Your task to perform on an android device: Search for the new Nike Air Max 270 on Nike.com Image 0: 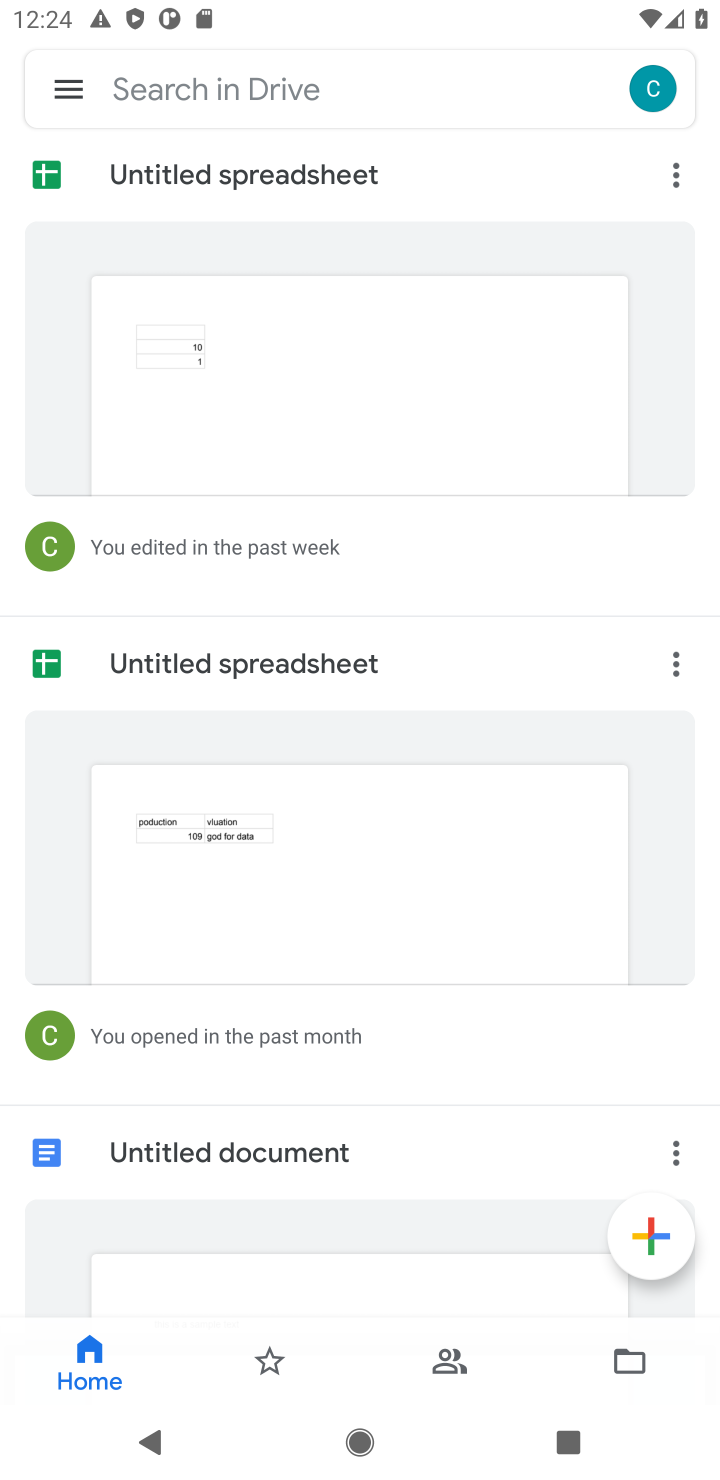
Step 0: press home button
Your task to perform on an android device: Search for the new Nike Air Max 270 on Nike.com Image 1: 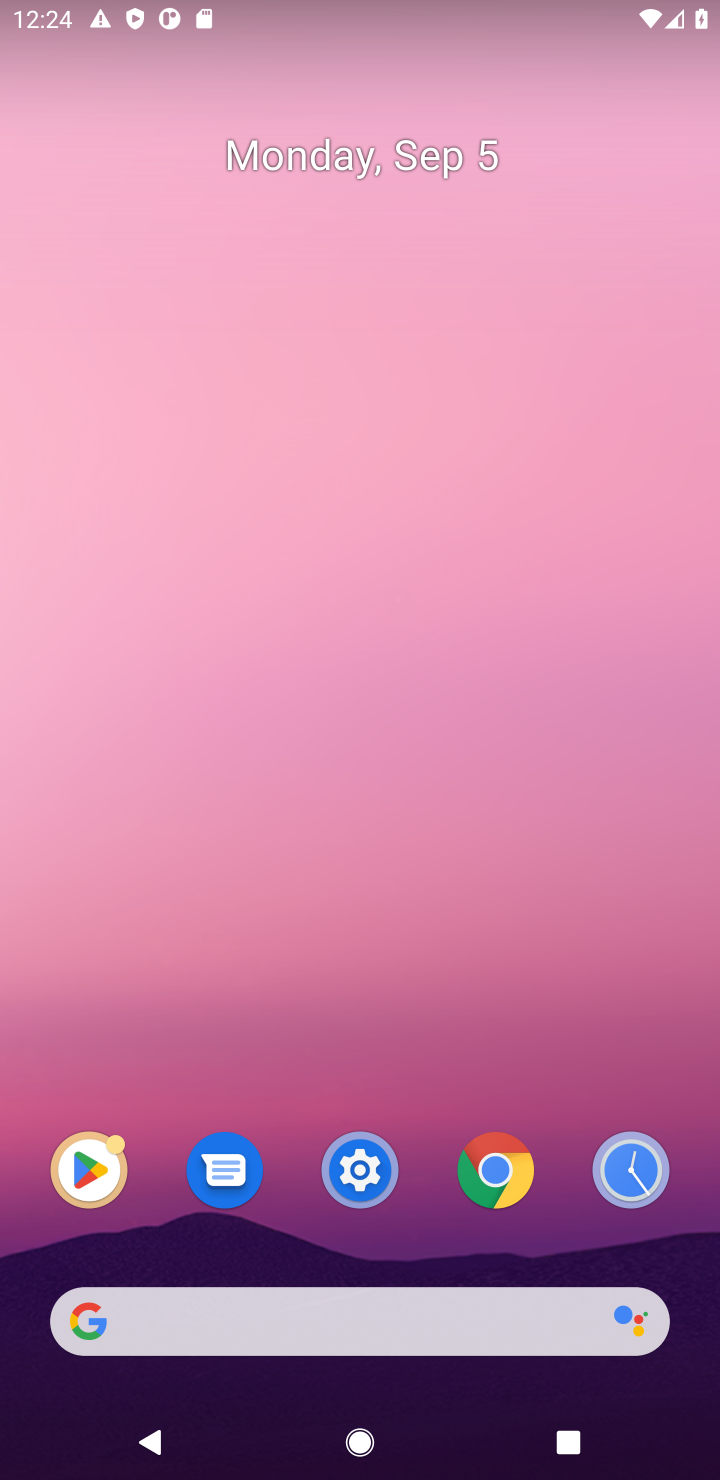
Step 1: click (433, 1297)
Your task to perform on an android device: Search for the new Nike Air Max 270 on Nike.com Image 2: 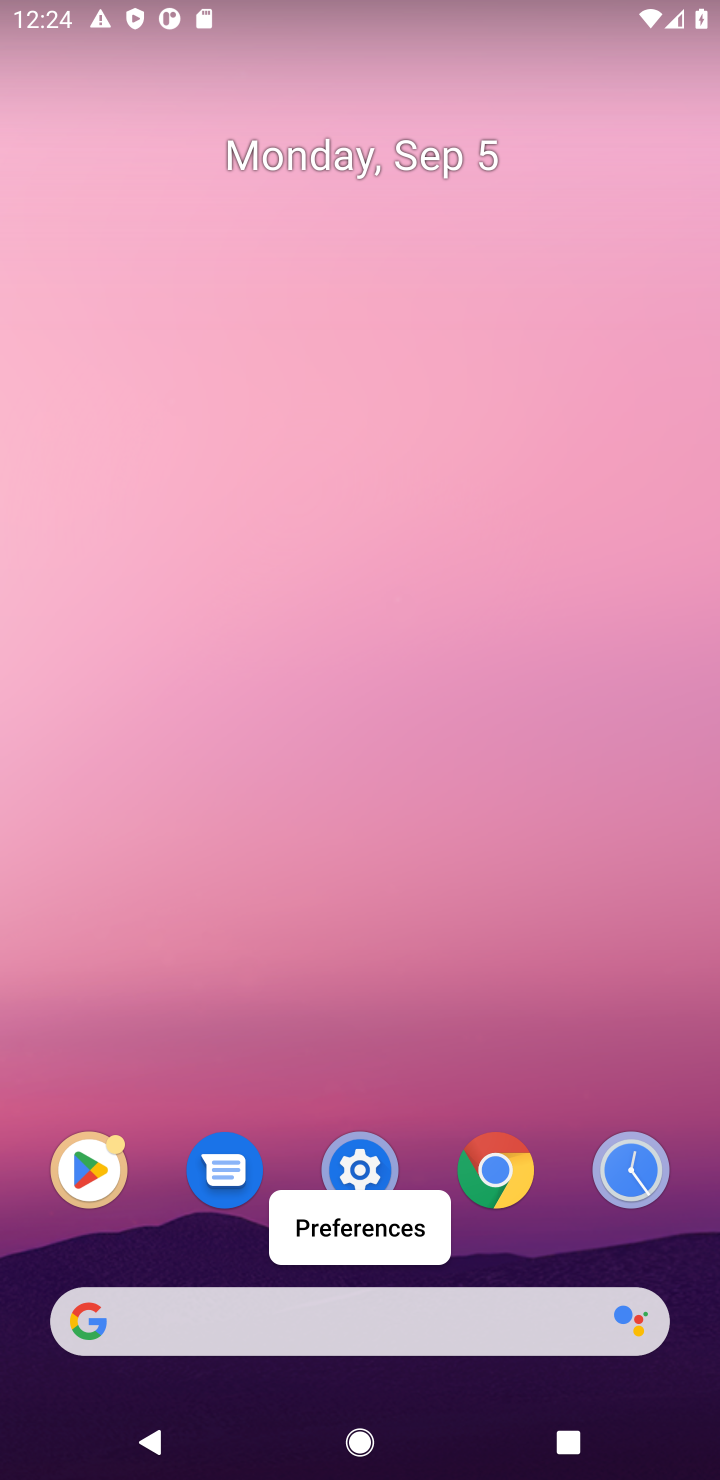
Step 2: click (414, 1320)
Your task to perform on an android device: Search for the new Nike Air Max 270 on Nike.com Image 3: 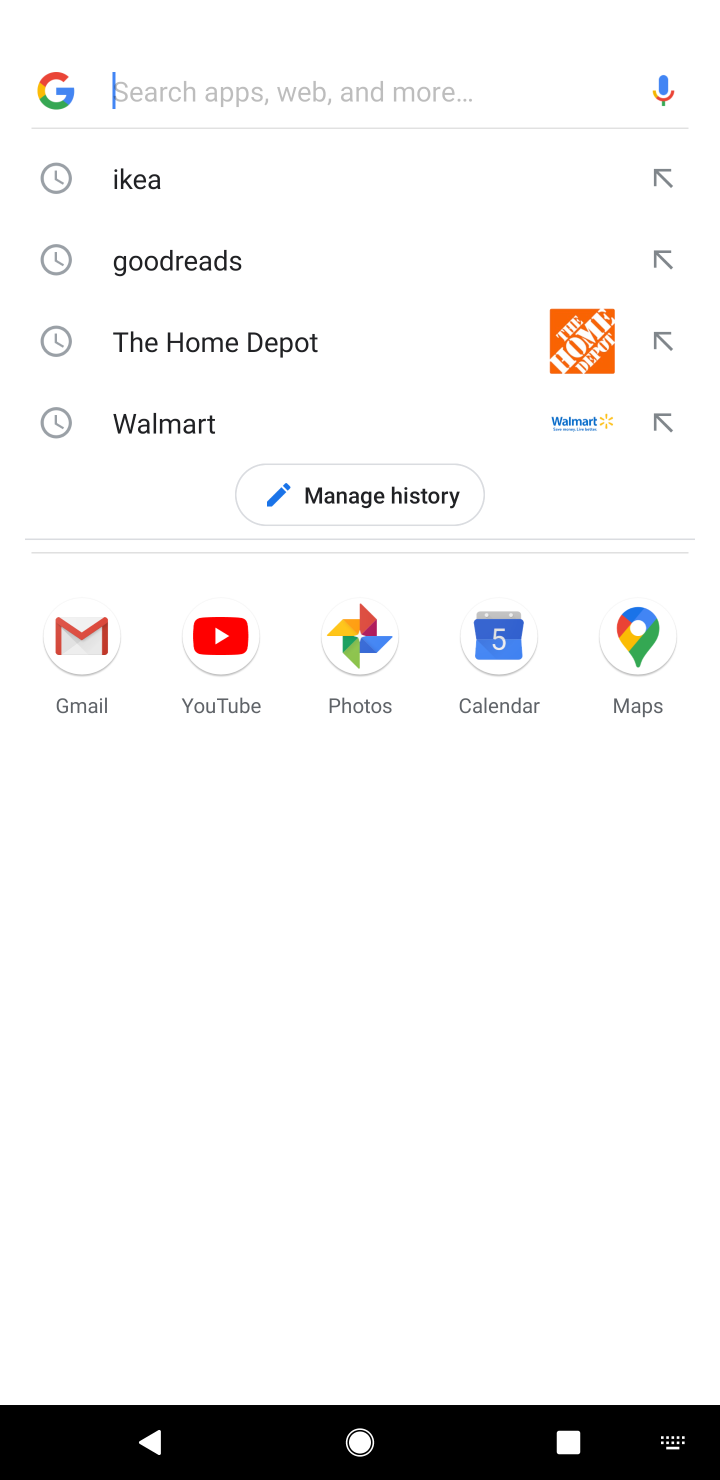
Step 3: type "Nike.com"
Your task to perform on an android device: Search for the new Nike Air Max 270 on Nike.com Image 4: 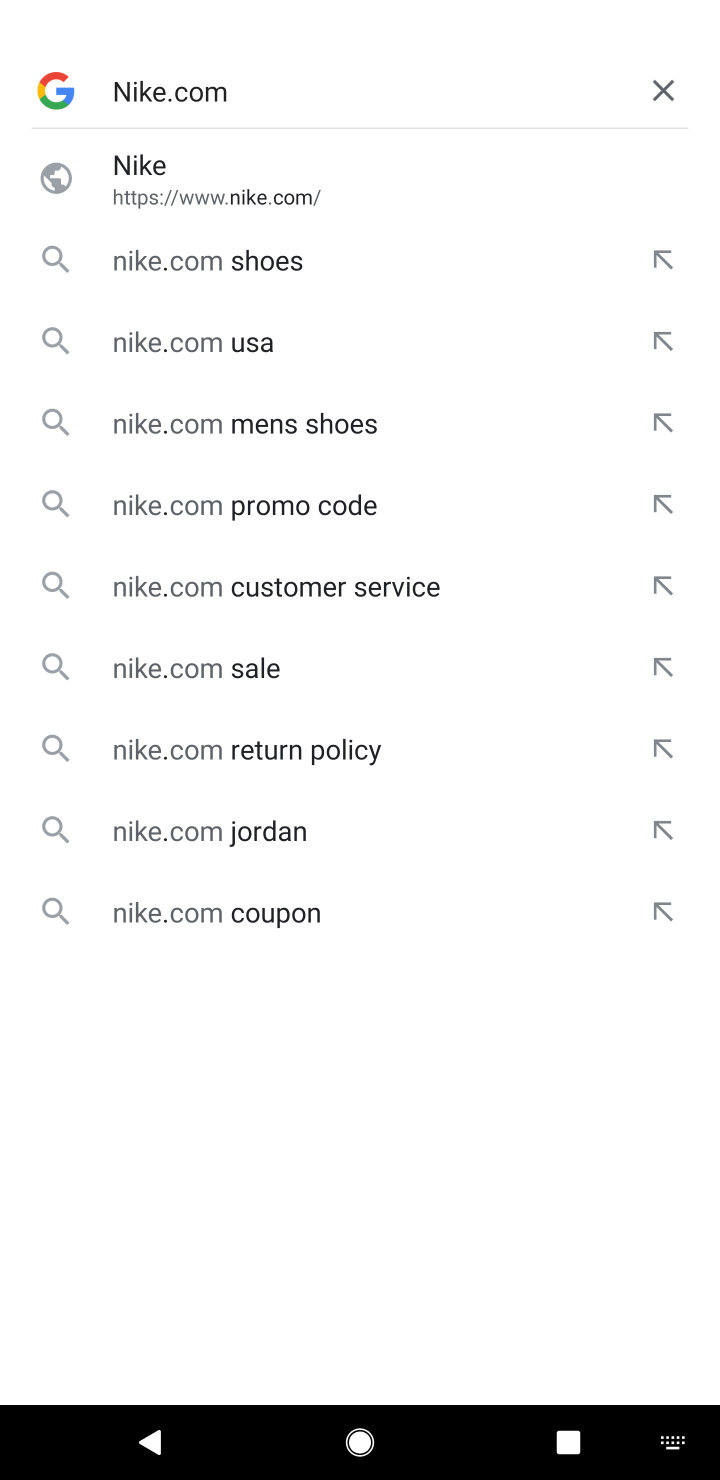
Step 4: click (300, 185)
Your task to perform on an android device: Search for the new Nike Air Max 270 on Nike.com Image 5: 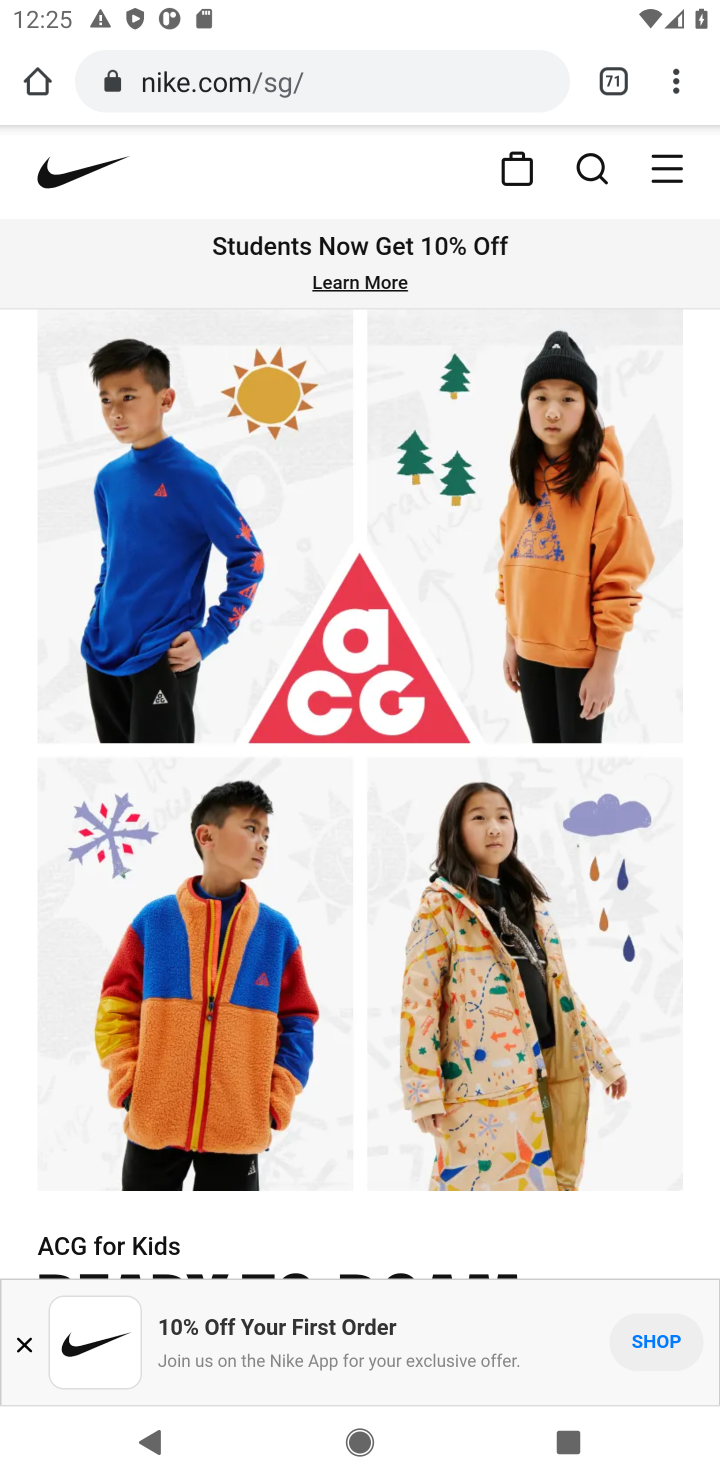
Step 5: click (578, 191)
Your task to perform on an android device: Search for the new Nike Air Max 270 on Nike.com Image 6: 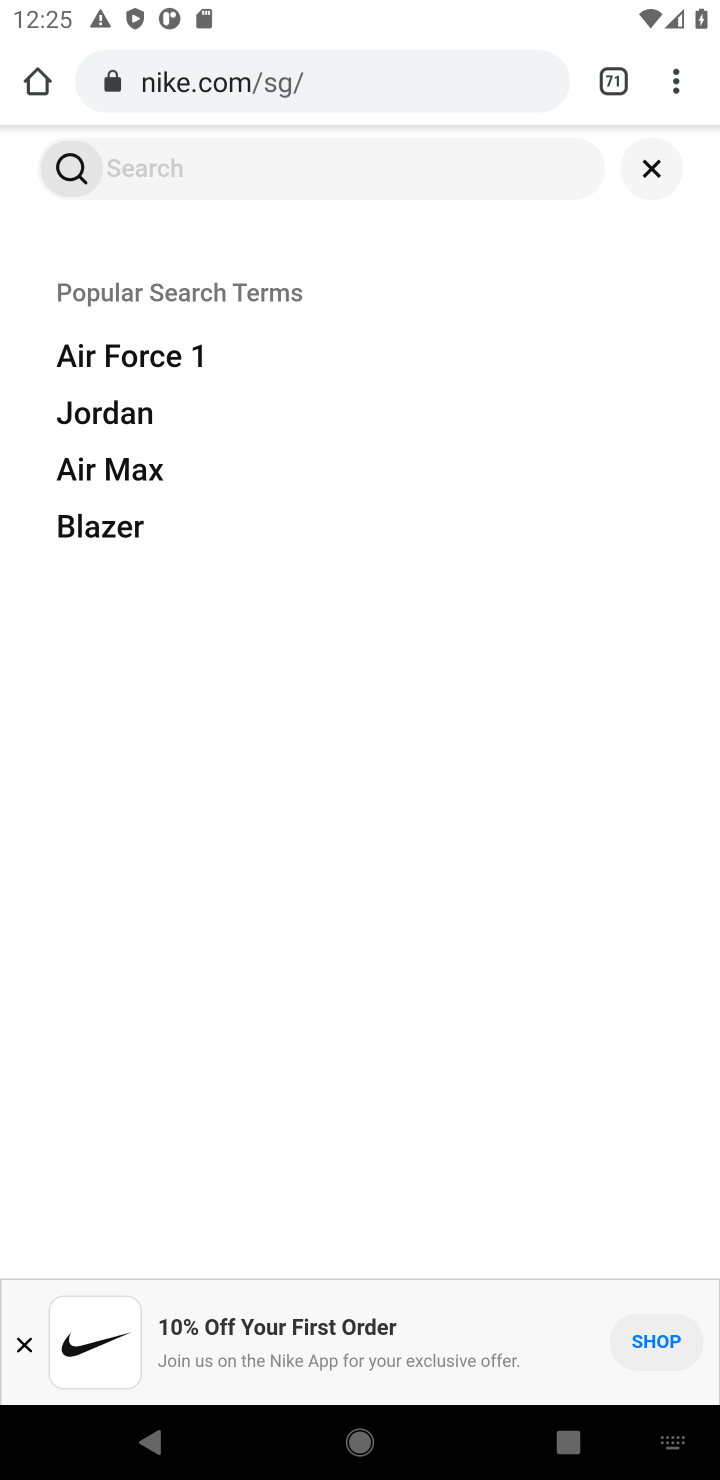
Step 6: type "Nike Air Max 270"
Your task to perform on an android device: Search for the new Nike Air Max 270 on Nike.com Image 7: 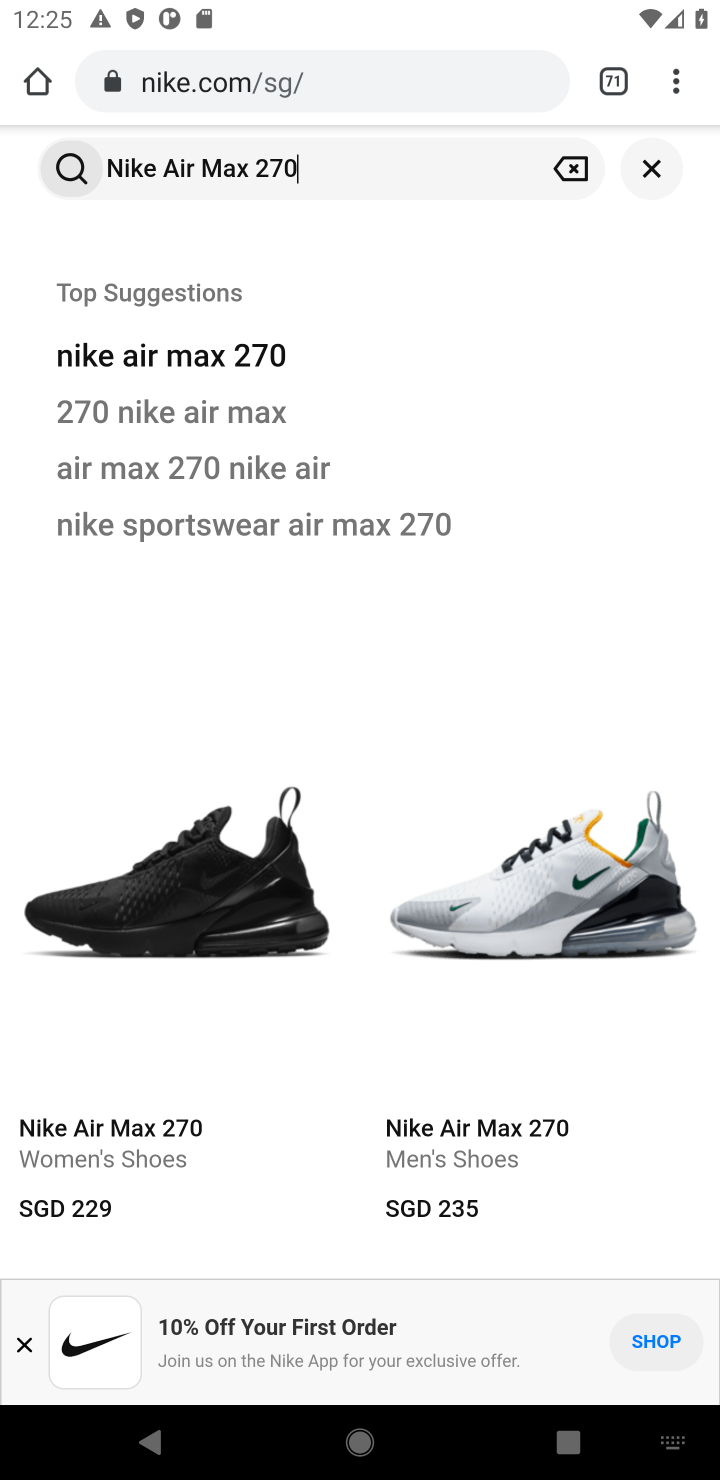
Step 7: click (282, 343)
Your task to perform on an android device: Search for the new Nike Air Max 270 on Nike.com Image 8: 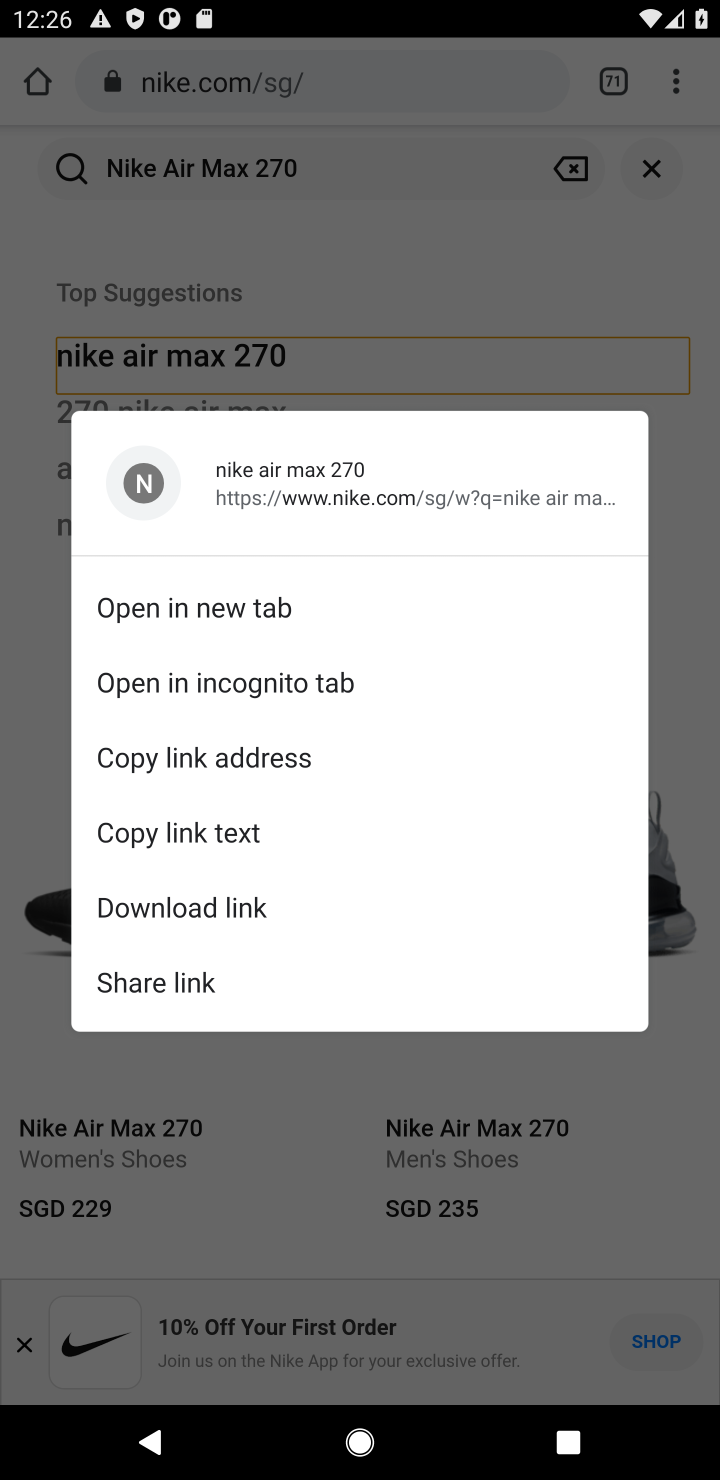
Step 8: click (229, 1117)
Your task to perform on an android device: Search for the new Nike Air Max 270 on Nike.com Image 9: 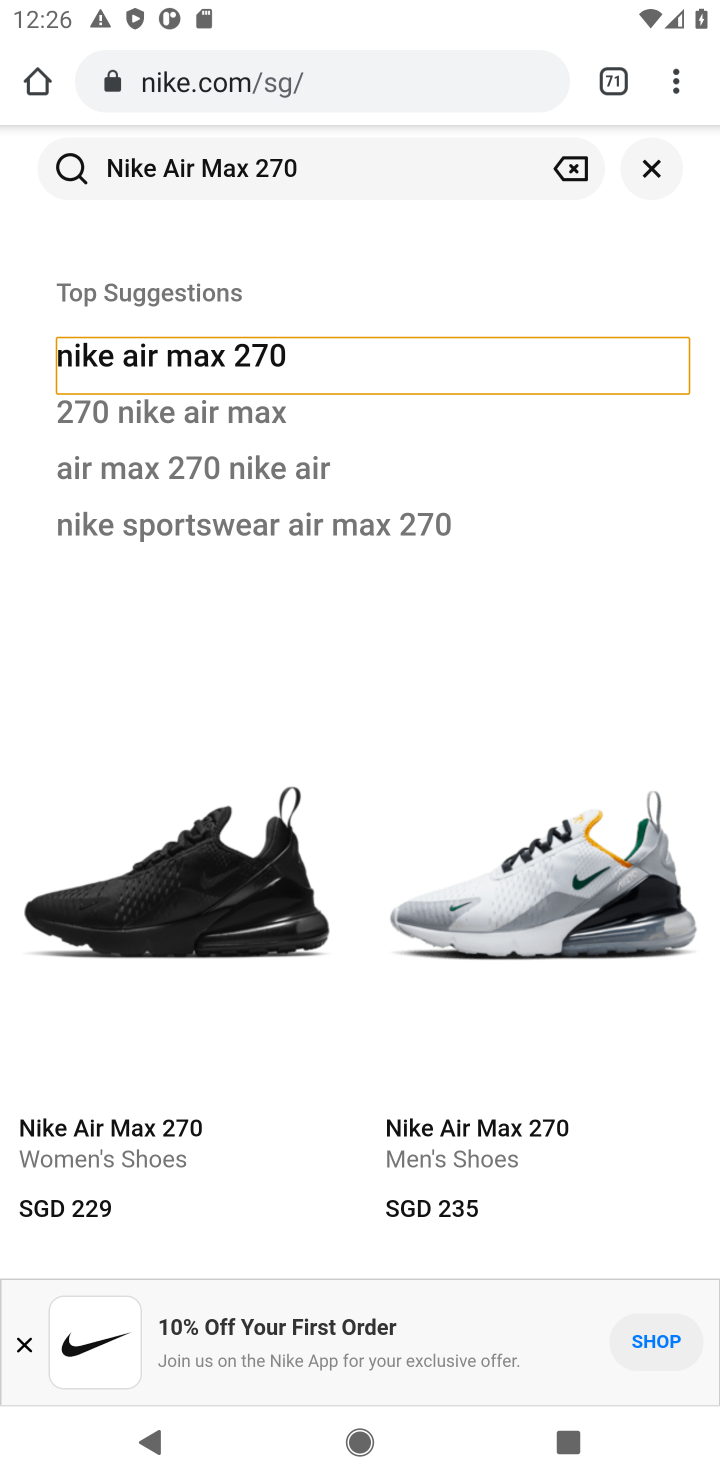
Step 9: click (394, 368)
Your task to perform on an android device: Search for the new Nike Air Max 270 on Nike.com Image 10: 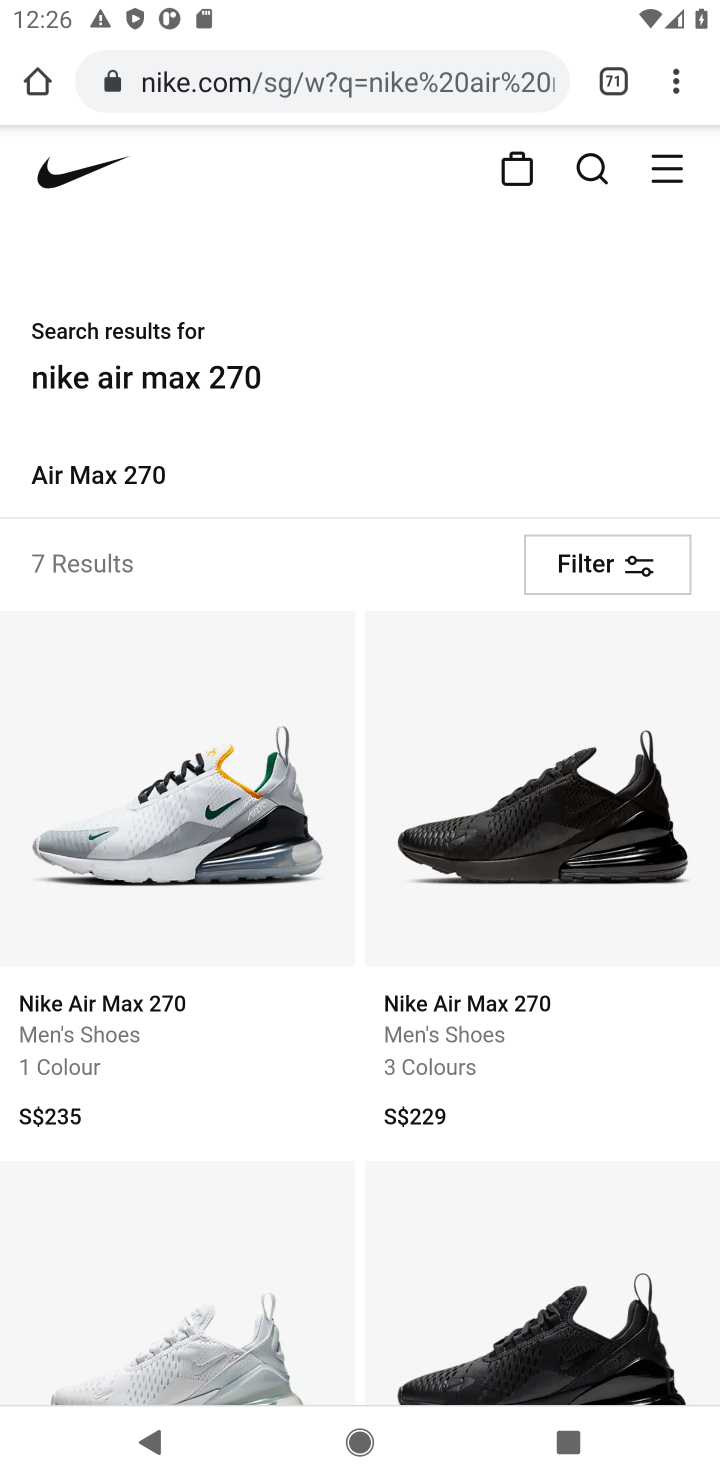
Step 10: task complete